Your task to perform on an android device: toggle show notifications on the lock screen Image 0: 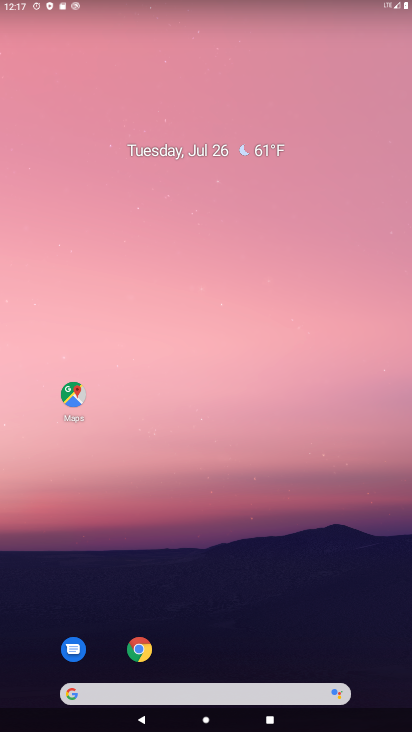
Step 0: drag from (249, 666) to (264, 158)
Your task to perform on an android device: toggle show notifications on the lock screen Image 1: 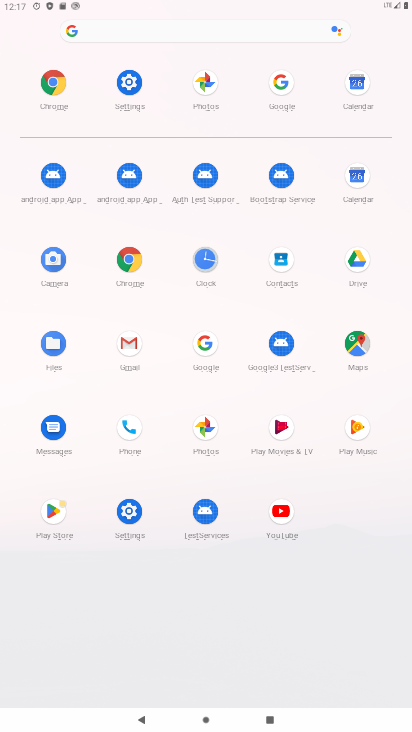
Step 1: click (126, 503)
Your task to perform on an android device: toggle show notifications on the lock screen Image 2: 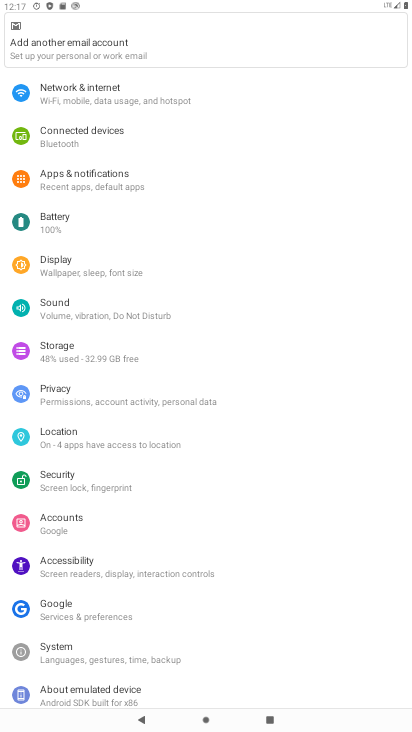
Step 2: click (57, 177)
Your task to perform on an android device: toggle show notifications on the lock screen Image 3: 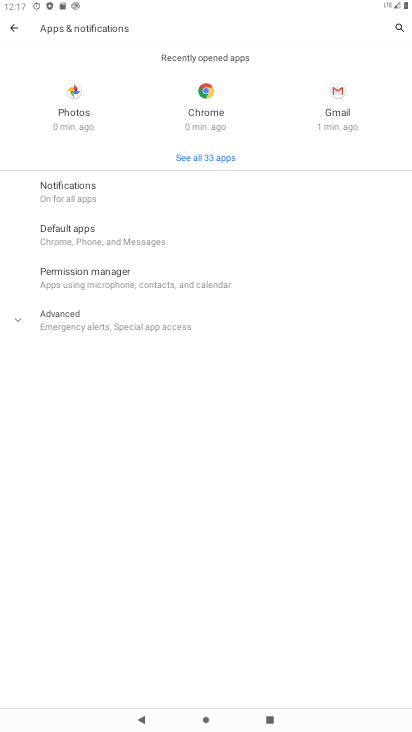
Step 3: click (94, 190)
Your task to perform on an android device: toggle show notifications on the lock screen Image 4: 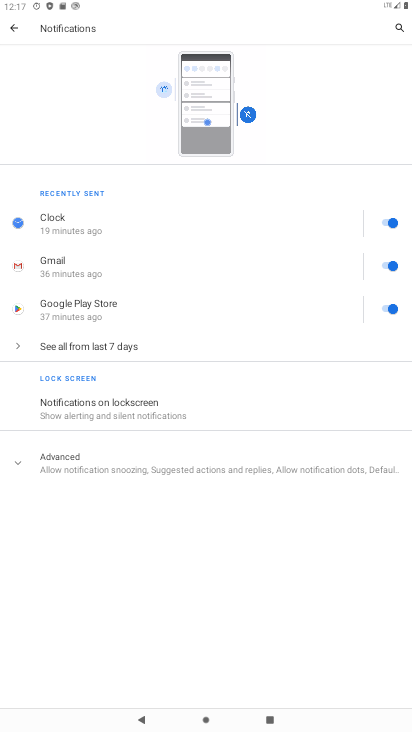
Step 4: click (115, 400)
Your task to perform on an android device: toggle show notifications on the lock screen Image 5: 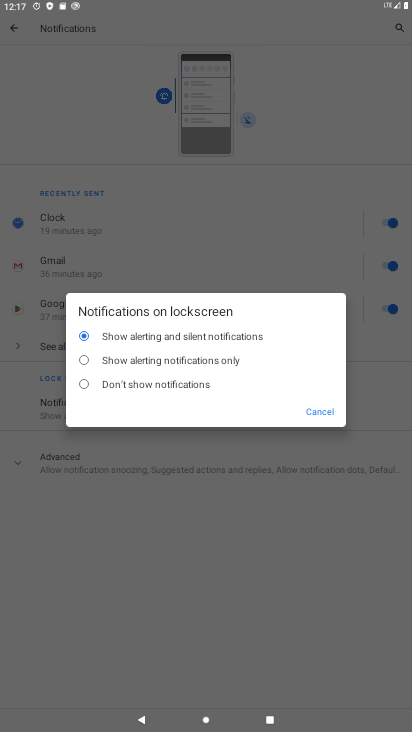
Step 5: click (119, 359)
Your task to perform on an android device: toggle show notifications on the lock screen Image 6: 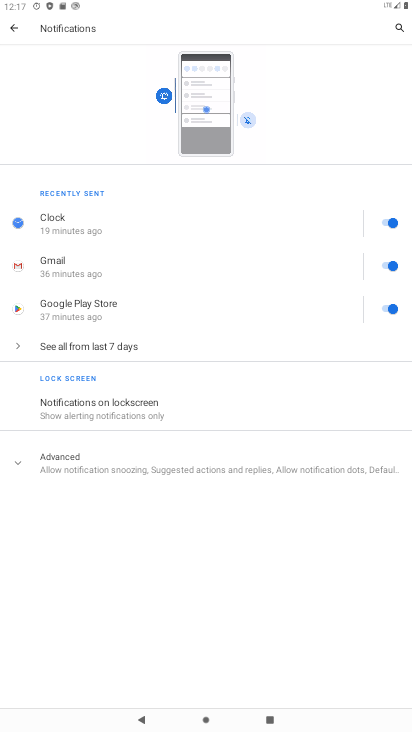
Step 6: task complete